Your task to perform on an android device: change text size in settings app Image 0: 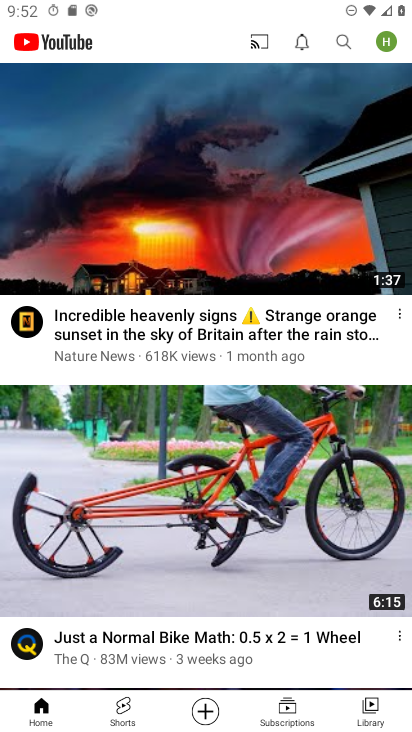
Step 0: press home button
Your task to perform on an android device: change text size in settings app Image 1: 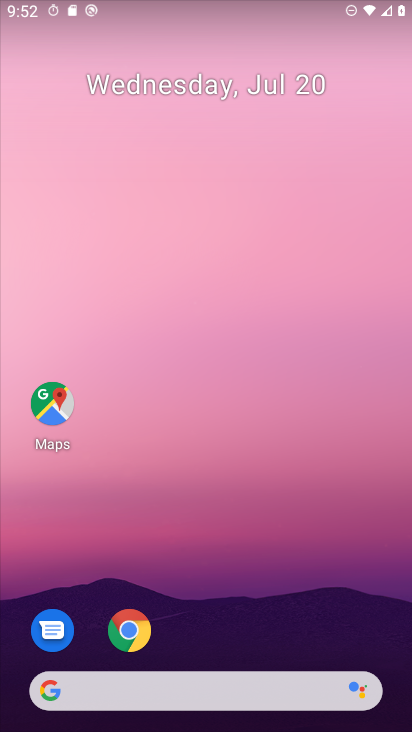
Step 1: drag from (223, 528) to (232, 117)
Your task to perform on an android device: change text size in settings app Image 2: 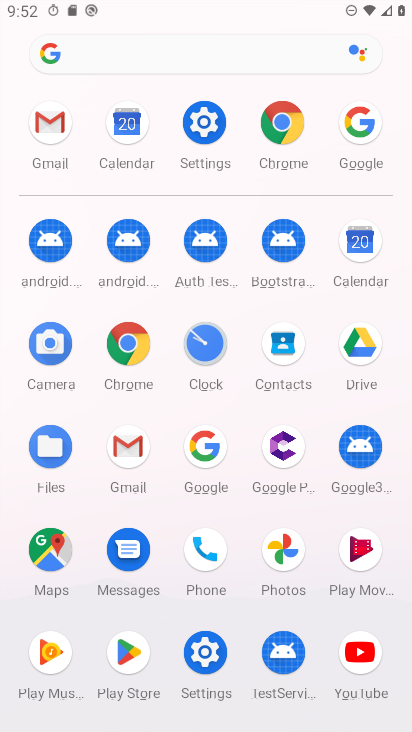
Step 2: click (202, 106)
Your task to perform on an android device: change text size in settings app Image 3: 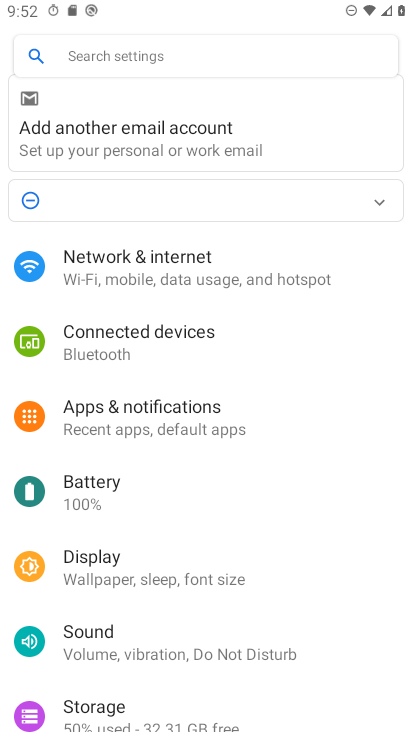
Step 3: click (149, 573)
Your task to perform on an android device: change text size in settings app Image 4: 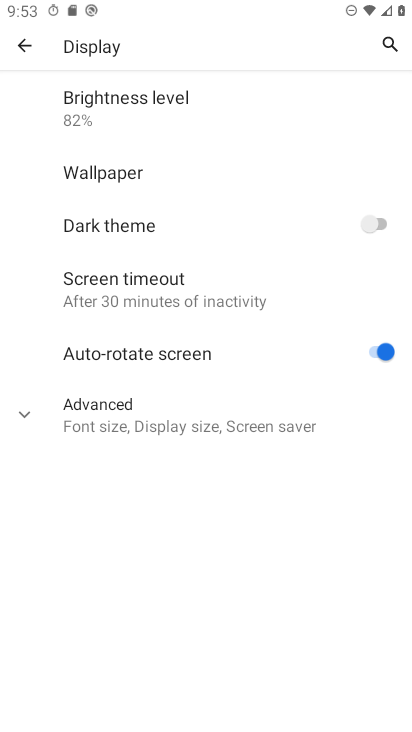
Step 4: click (134, 415)
Your task to perform on an android device: change text size in settings app Image 5: 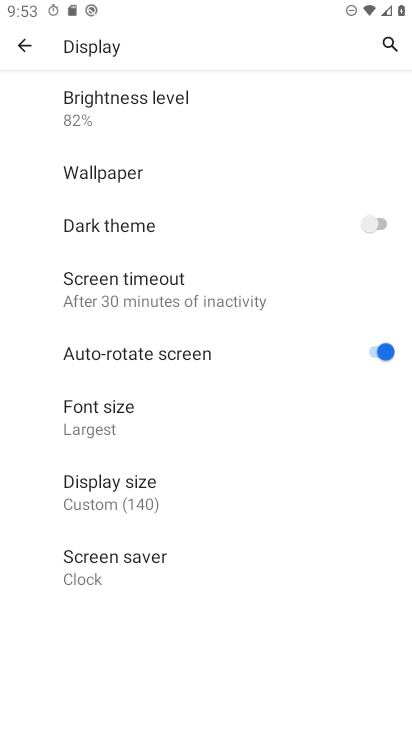
Step 5: click (129, 429)
Your task to perform on an android device: change text size in settings app Image 6: 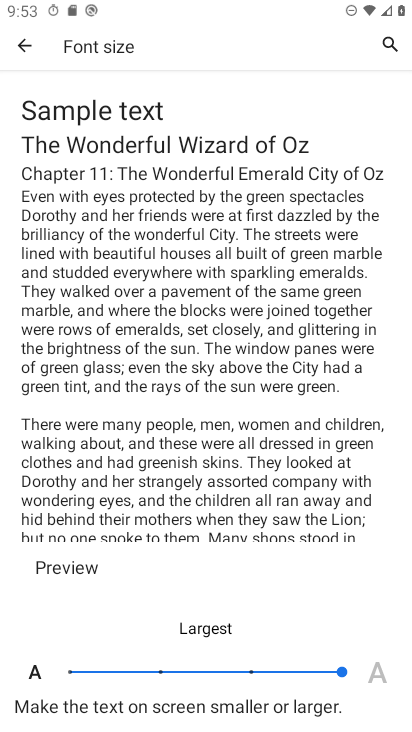
Step 6: click (255, 676)
Your task to perform on an android device: change text size in settings app Image 7: 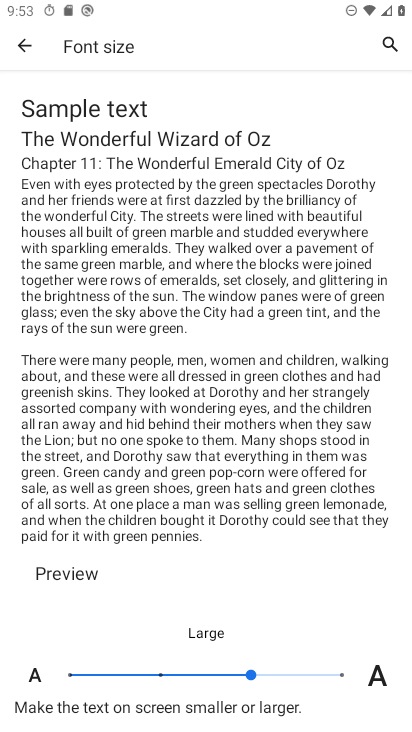
Step 7: task complete